Your task to perform on an android device: turn on javascript in the chrome app Image 0: 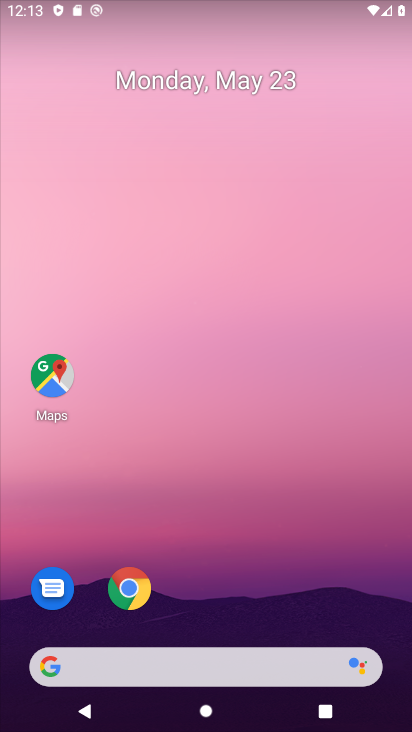
Step 0: click (127, 585)
Your task to perform on an android device: turn on javascript in the chrome app Image 1: 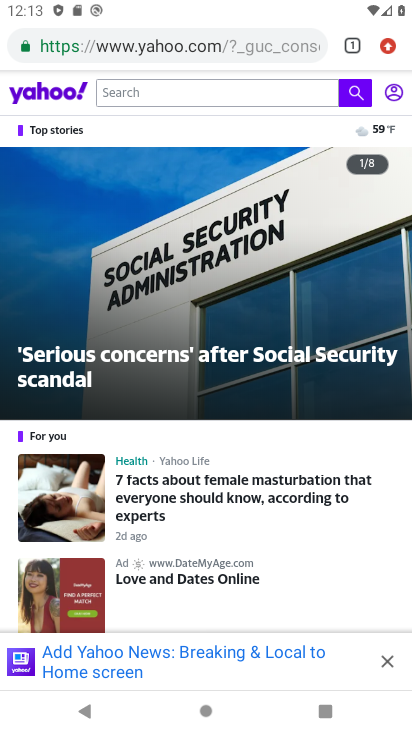
Step 1: click (390, 50)
Your task to perform on an android device: turn on javascript in the chrome app Image 2: 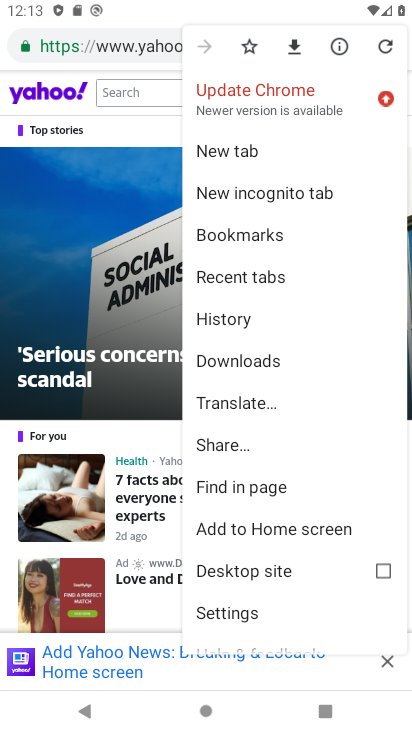
Step 2: click (227, 609)
Your task to perform on an android device: turn on javascript in the chrome app Image 3: 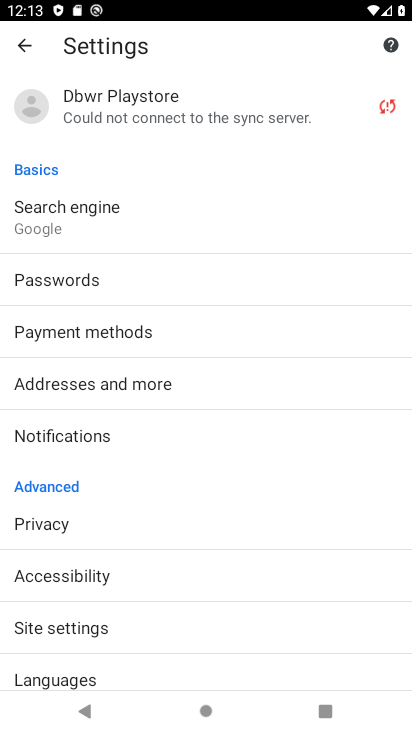
Step 3: click (32, 626)
Your task to perform on an android device: turn on javascript in the chrome app Image 4: 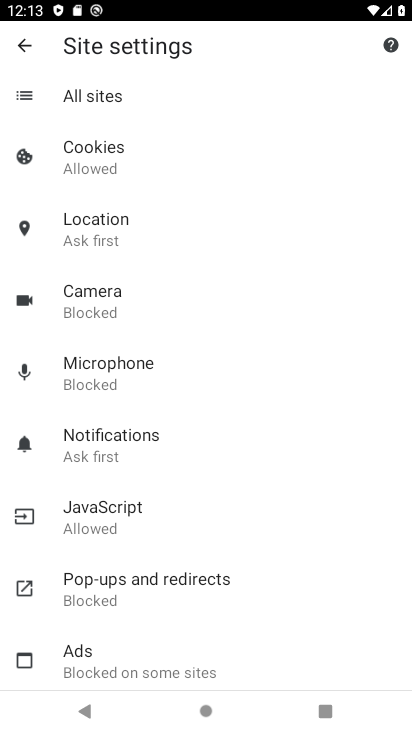
Step 4: click (85, 513)
Your task to perform on an android device: turn on javascript in the chrome app Image 5: 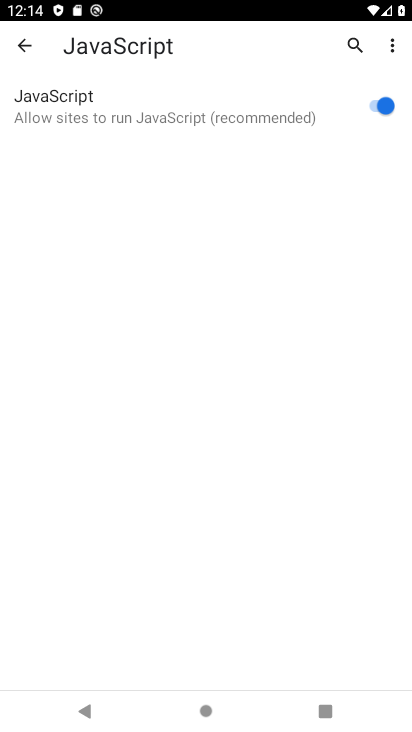
Step 5: task complete